Your task to perform on an android device: choose inbox layout in the gmail app Image 0: 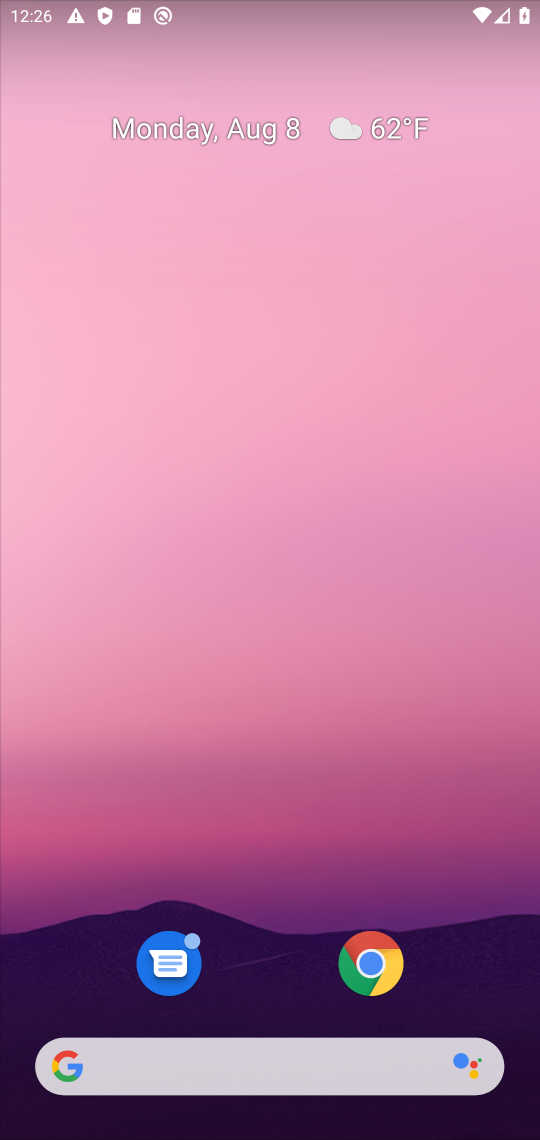
Step 0: drag from (510, 965) to (252, 46)
Your task to perform on an android device: choose inbox layout in the gmail app Image 1: 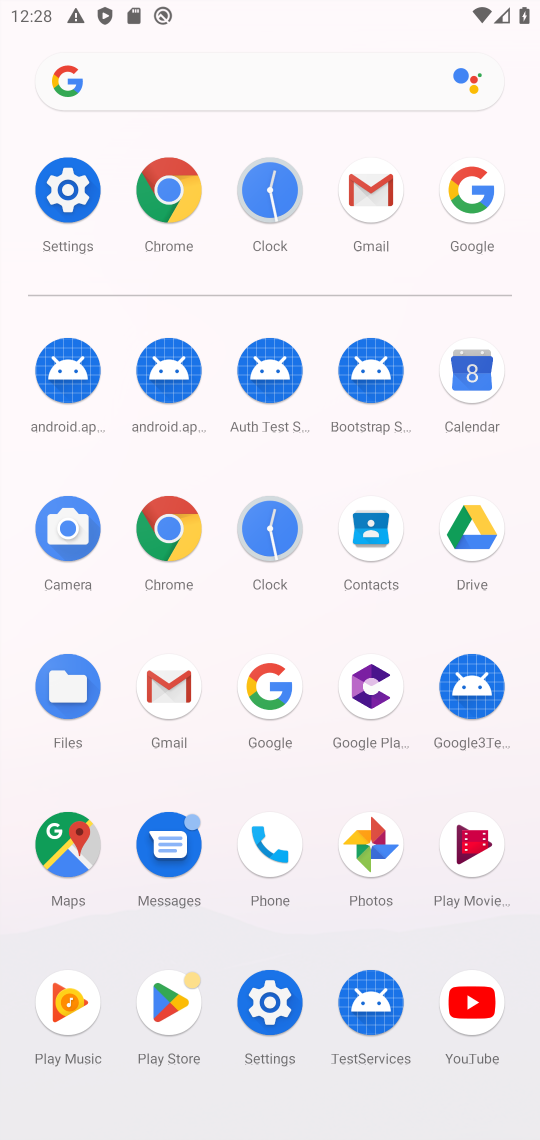
Step 1: click (168, 714)
Your task to perform on an android device: choose inbox layout in the gmail app Image 2: 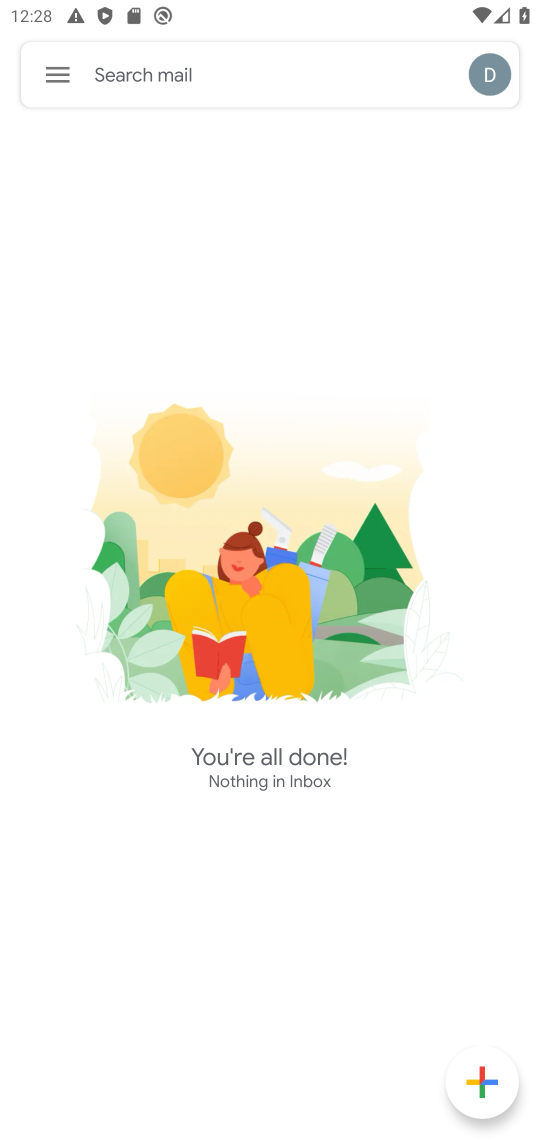
Step 2: task complete